Your task to perform on an android device: change keyboard looks Image 0: 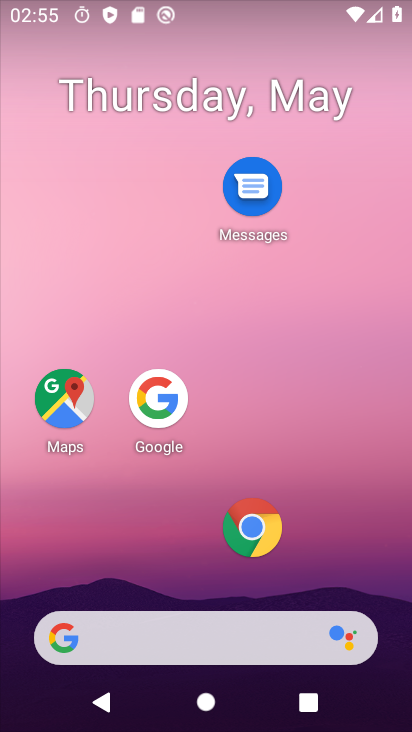
Step 0: drag from (193, 587) to (290, 171)
Your task to perform on an android device: change keyboard looks Image 1: 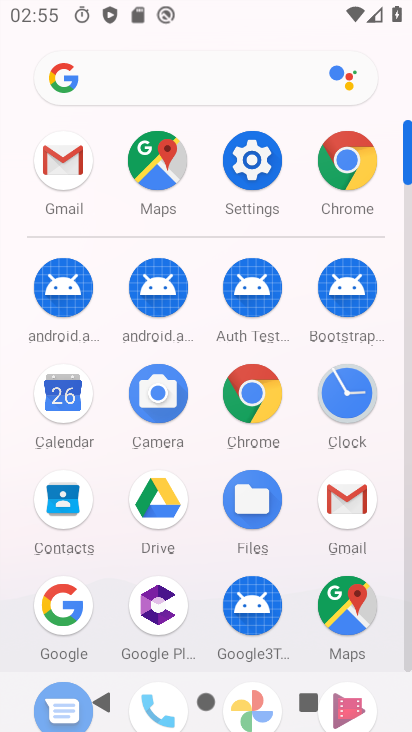
Step 1: click (262, 158)
Your task to perform on an android device: change keyboard looks Image 2: 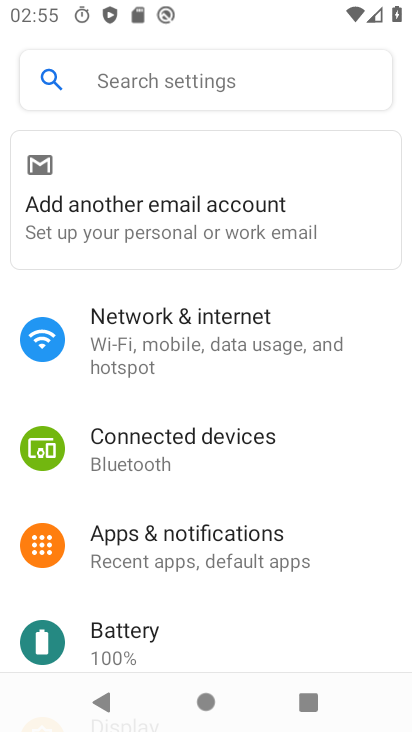
Step 2: drag from (219, 611) to (218, 218)
Your task to perform on an android device: change keyboard looks Image 3: 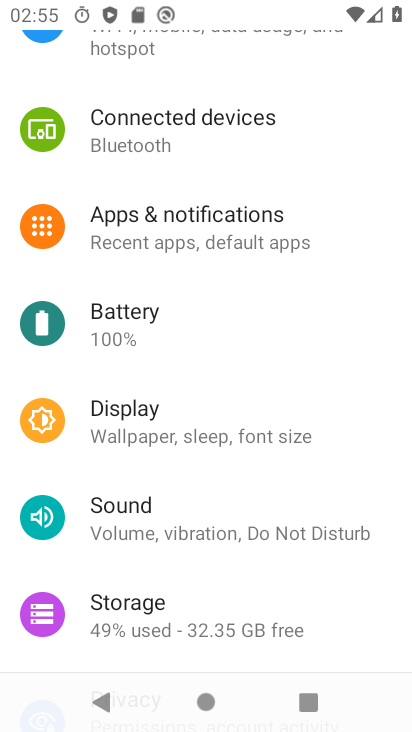
Step 3: drag from (205, 612) to (206, 72)
Your task to perform on an android device: change keyboard looks Image 4: 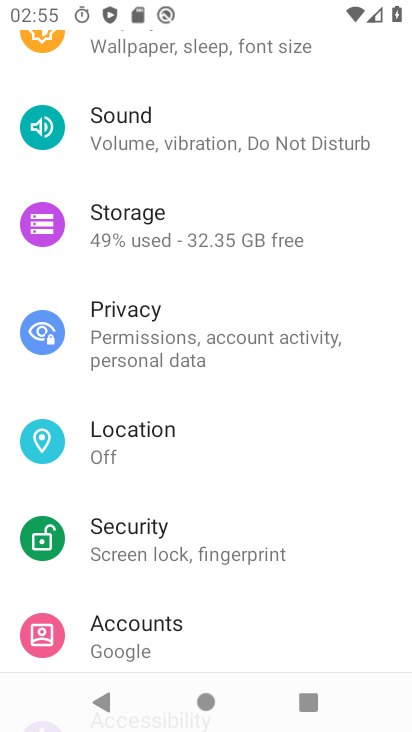
Step 4: drag from (247, 602) to (309, 248)
Your task to perform on an android device: change keyboard looks Image 5: 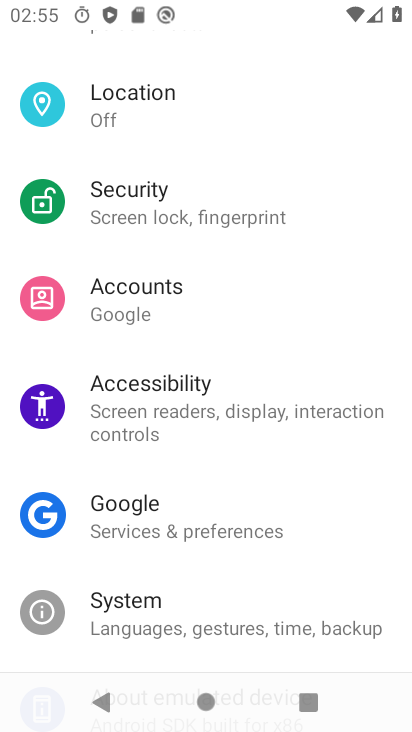
Step 5: click (196, 618)
Your task to perform on an android device: change keyboard looks Image 6: 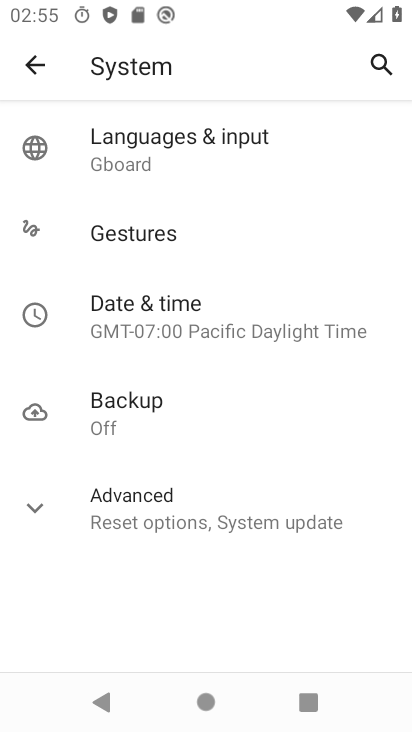
Step 6: drag from (194, 616) to (243, 305)
Your task to perform on an android device: change keyboard looks Image 7: 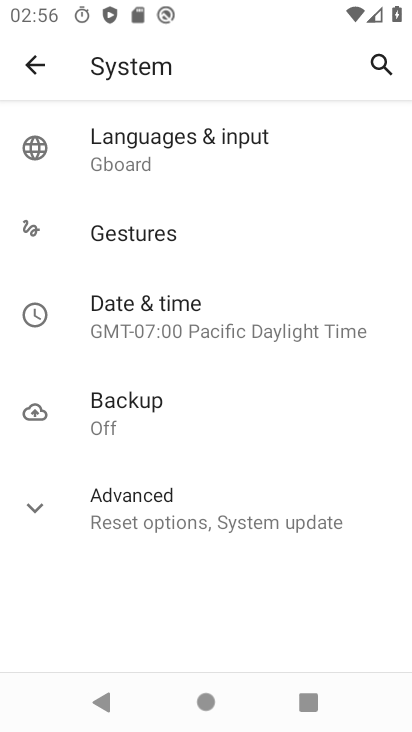
Step 7: click (197, 171)
Your task to perform on an android device: change keyboard looks Image 8: 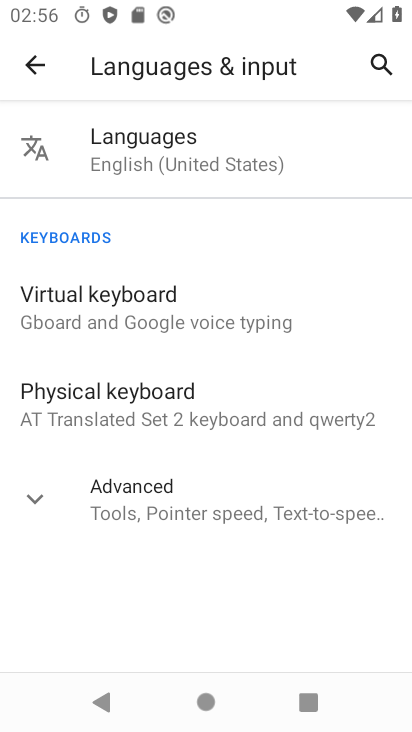
Step 8: click (178, 301)
Your task to perform on an android device: change keyboard looks Image 9: 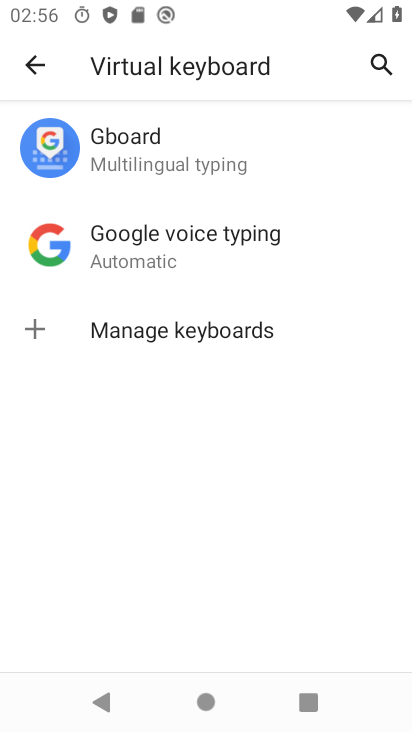
Step 9: click (195, 142)
Your task to perform on an android device: change keyboard looks Image 10: 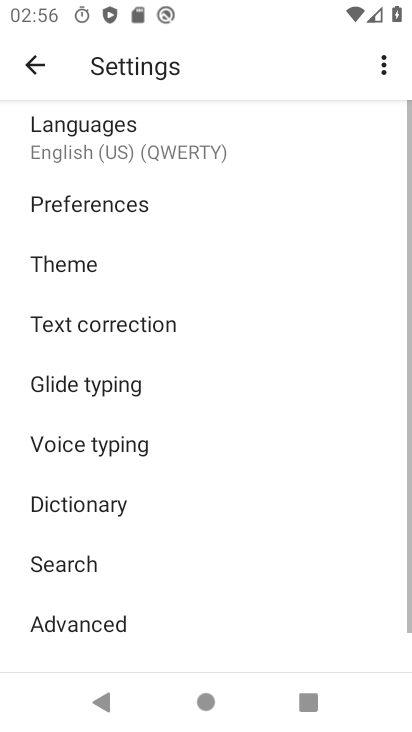
Step 10: drag from (187, 438) to (205, 218)
Your task to perform on an android device: change keyboard looks Image 11: 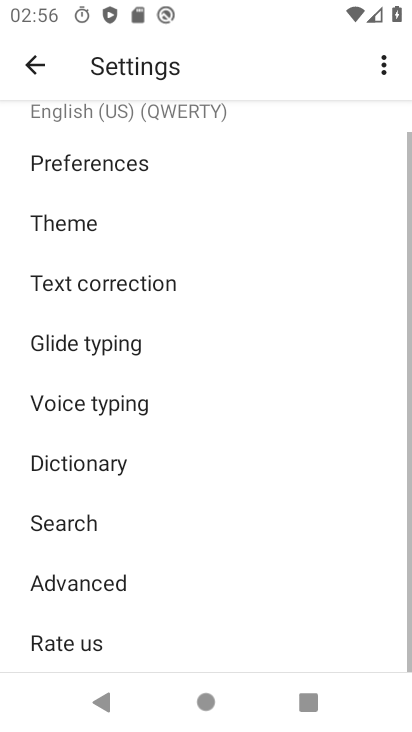
Step 11: click (112, 224)
Your task to perform on an android device: change keyboard looks Image 12: 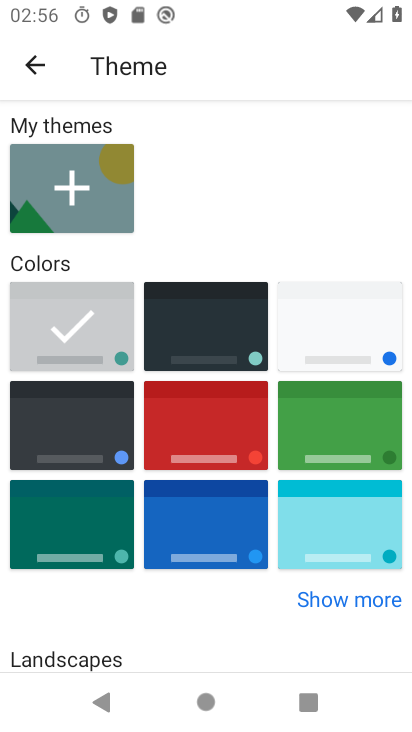
Step 12: click (238, 324)
Your task to perform on an android device: change keyboard looks Image 13: 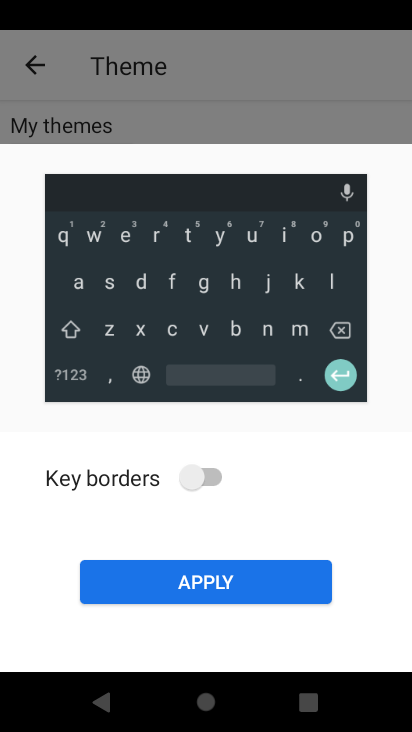
Step 13: click (210, 591)
Your task to perform on an android device: change keyboard looks Image 14: 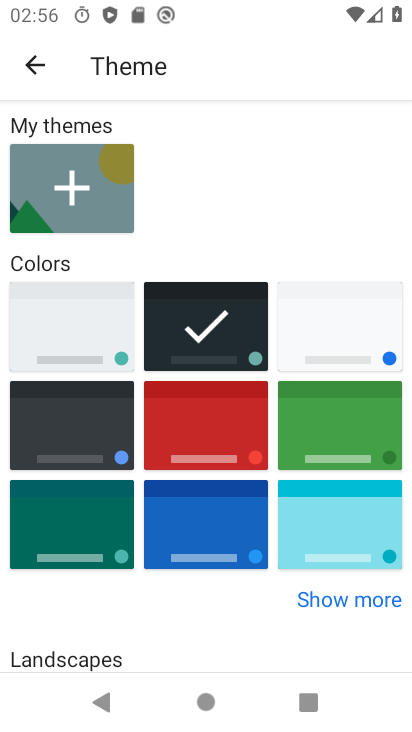
Step 14: task complete